Your task to perform on an android device: see sites visited before in the chrome app Image 0: 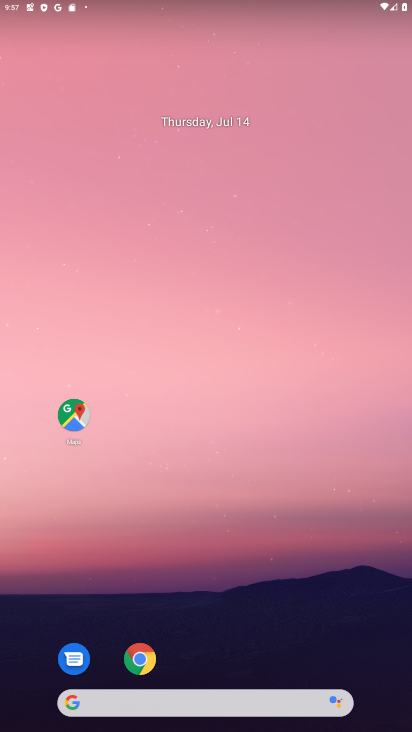
Step 0: drag from (294, 644) to (235, 227)
Your task to perform on an android device: see sites visited before in the chrome app Image 1: 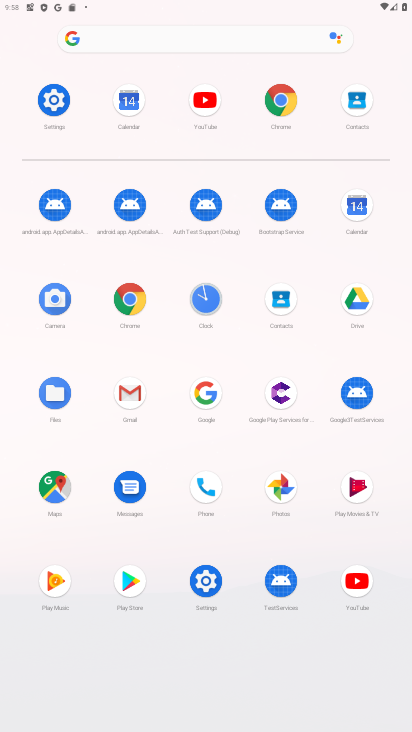
Step 1: click (129, 297)
Your task to perform on an android device: see sites visited before in the chrome app Image 2: 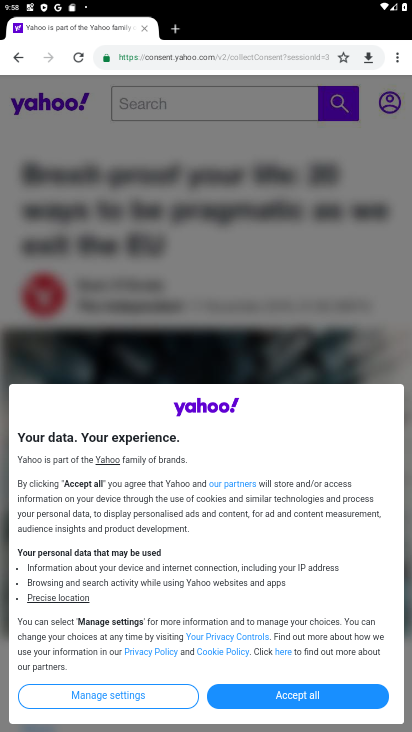
Step 2: click (400, 49)
Your task to perform on an android device: see sites visited before in the chrome app Image 3: 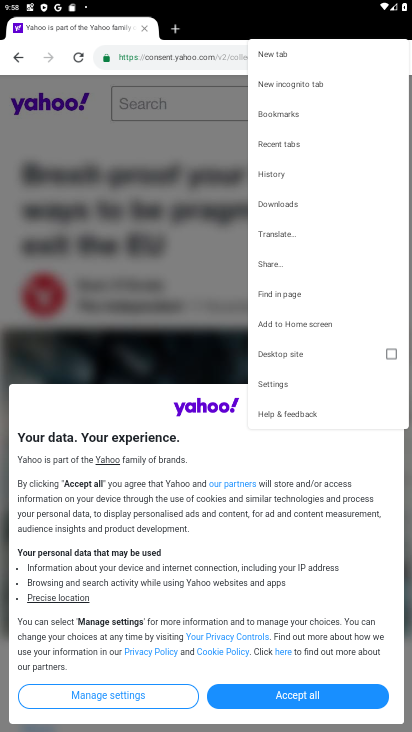
Step 3: click (273, 171)
Your task to perform on an android device: see sites visited before in the chrome app Image 4: 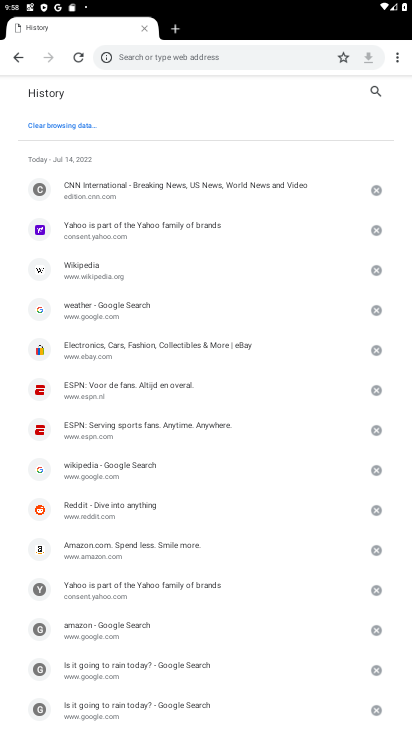
Step 4: task complete